Your task to perform on an android device: turn off notifications settings in the gmail app Image 0: 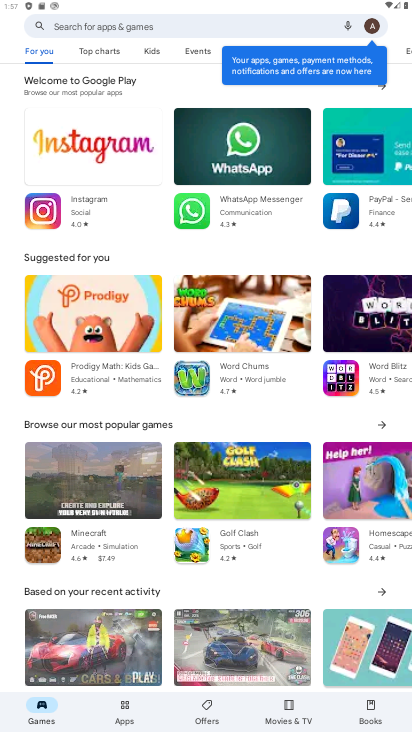
Step 0: press home button
Your task to perform on an android device: turn off notifications settings in the gmail app Image 1: 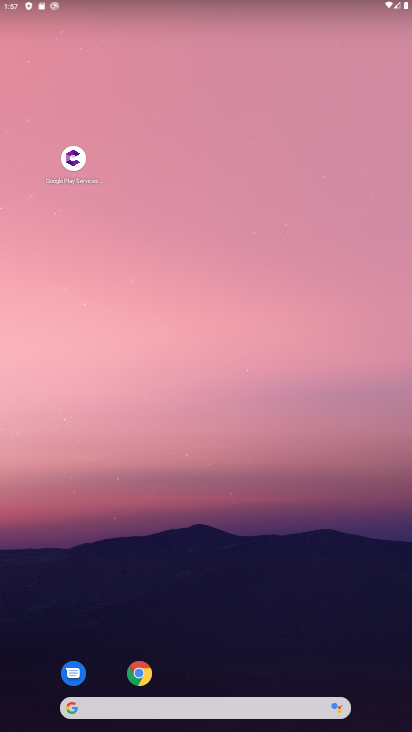
Step 1: drag from (214, 545) to (288, 159)
Your task to perform on an android device: turn off notifications settings in the gmail app Image 2: 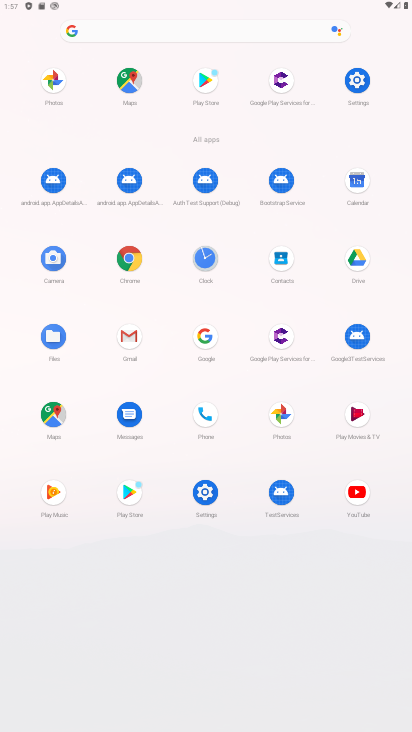
Step 2: click (132, 348)
Your task to perform on an android device: turn off notifications settings in the gmail app Image 3: 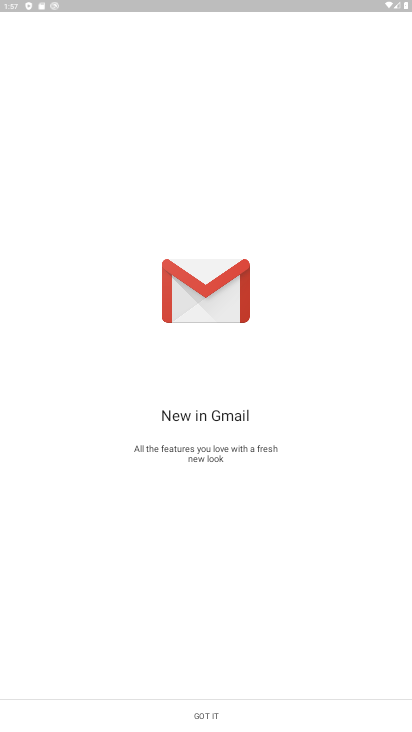
Step 3: click (199, 721)
Your task to perform on an android device: turn off notifications settings in the gmail app Image 4: 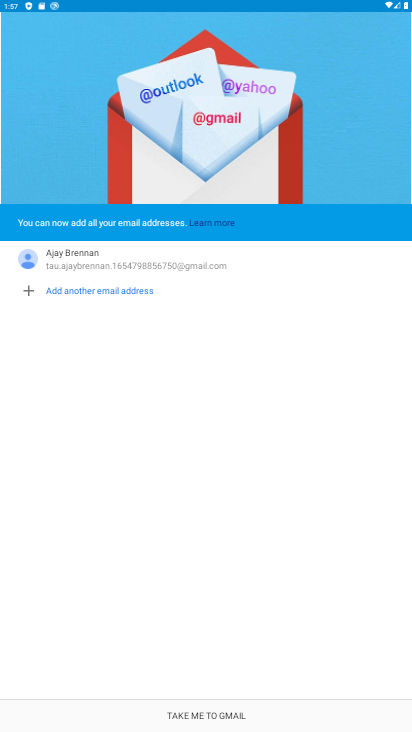
Step 4: click (212, 714)
Your task to perform on an android device: turn off notifications settings in the gmail app Image 5: 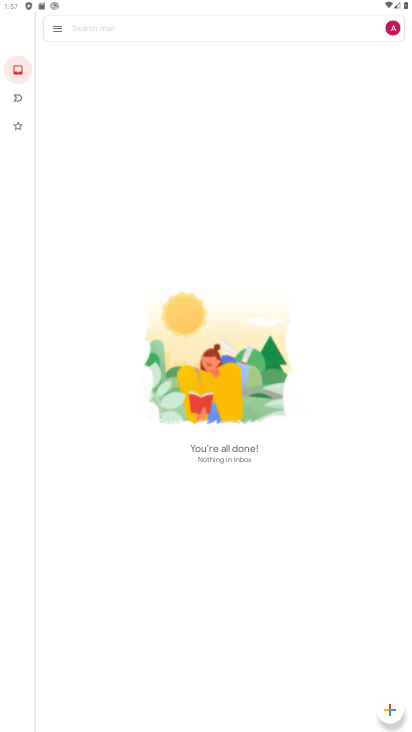
Step 5: click (55, 29)
Your task to perform on an android device: turn off notifications settings in the gmail app Image 6: 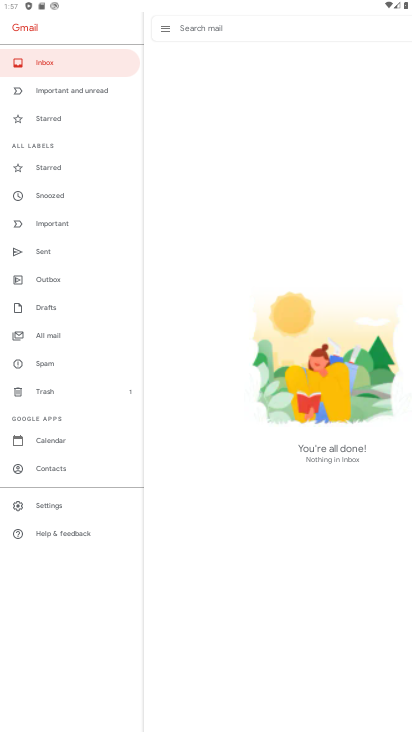
Step 6: click (65, 512)
Your task to perform on an android device: turn off notifications settings in the gmail app Image 7: 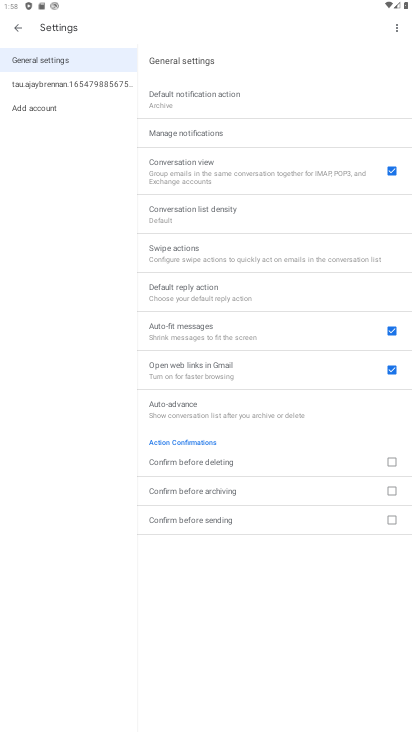
Step 7: click (85, 73)
Your task to perform on an android device: turn off notifications settings in the gmail app Image 8: 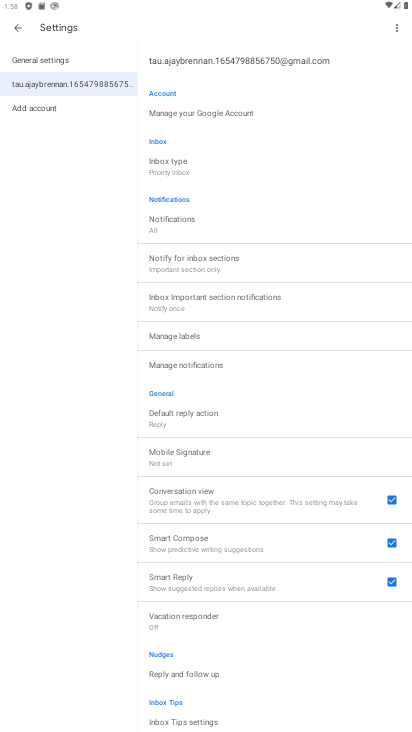
Step 8: click (238, 362)
Your task to perform on an android device: turn off notifications settings in the gmail app Image 9: 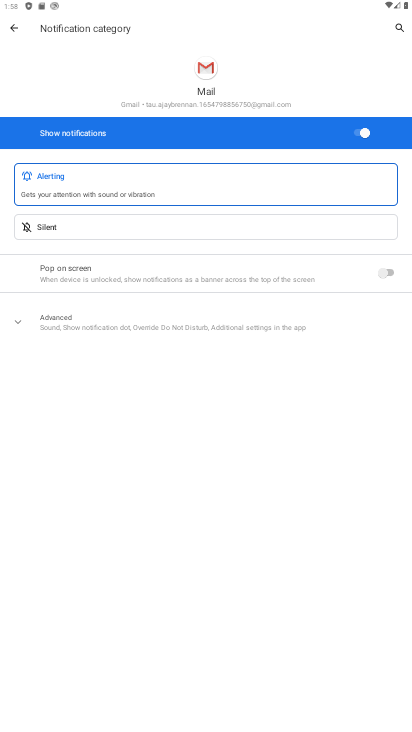
Step 9: click (352, 135)
Your task to perform on an android device: turn off notifications settings in the gmail app Image 10: 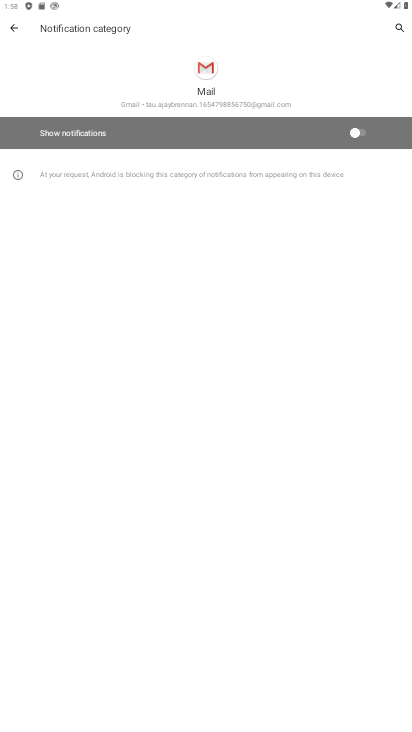
Step 10: task complete